Your task to perform on an android device: turn off improve location accuracy Image 0: 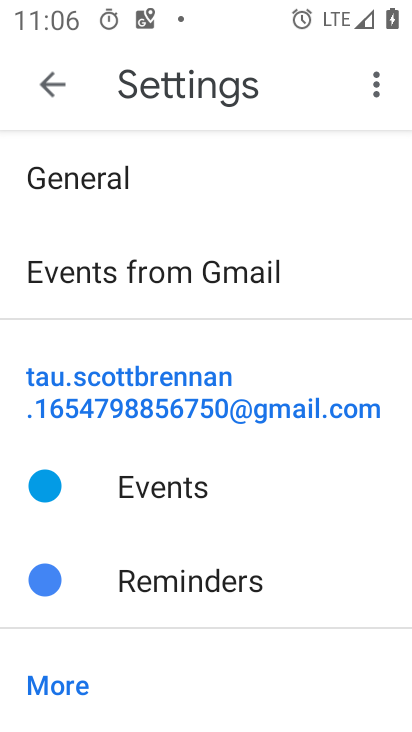
Step 0: press home button
Your task to perform on an android device: turn off improve location accuracy Image 1: 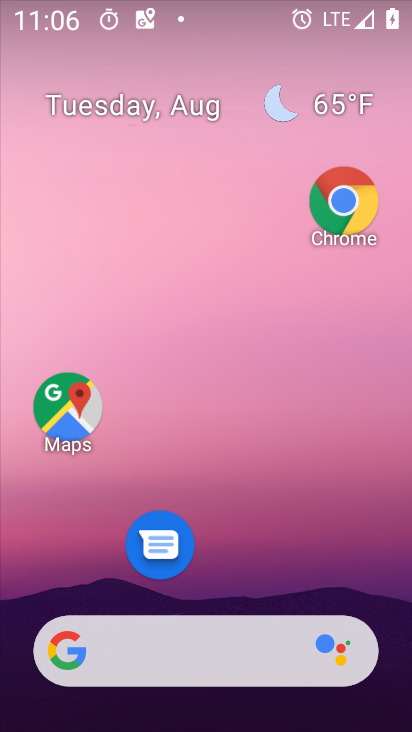
Step 1: drag from (252, 599) to (299, 170)
Your task to perform on an android device: turn off improve location accuracy Image 2: 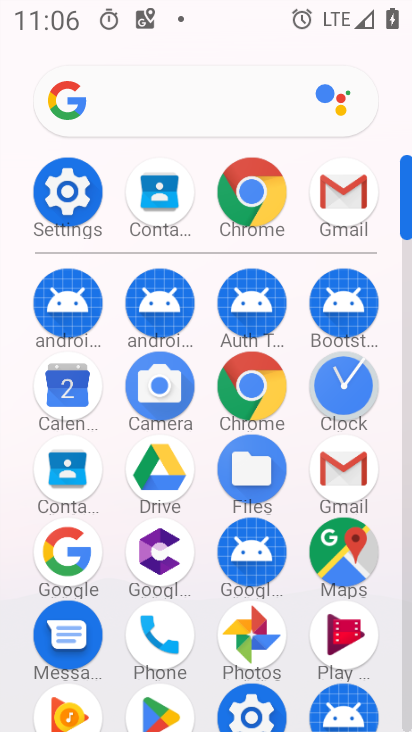
Step 2: click (103, 194)
Your task to perform on an android device: turn off improve location accuracy Image 3: 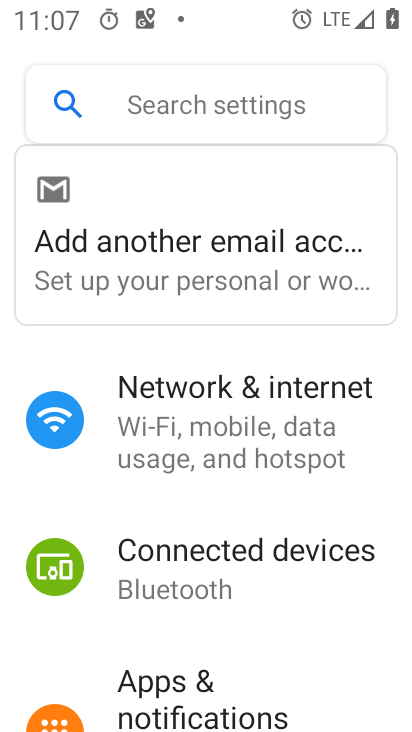
Step 3: drag from (262, 542) to (323, 167)
Your task to perform on an android device: turn off improve location accuracy Image 4: 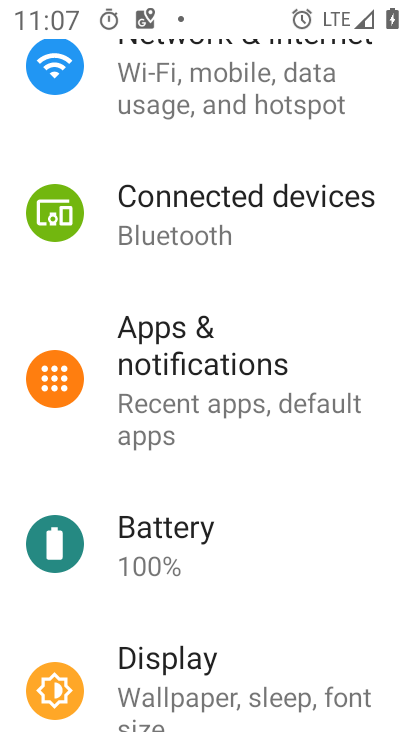
Step 4: drag from (231, 565) to (325, 270)
Your task to perform on an android device: turn off improve location accuracy Image 5: 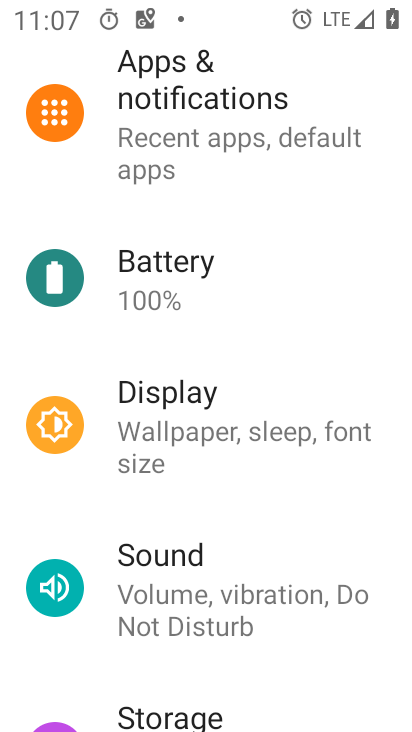
Step 5: drag from (203, 570) to (279, 239)
Your task to perform on an android device: turn off improve location accuracy Image 6: 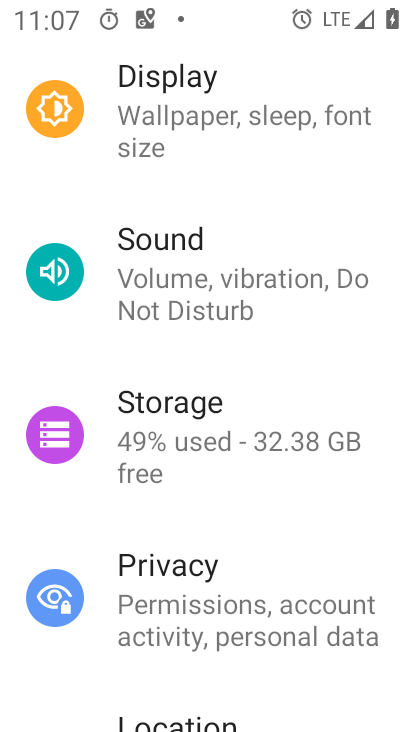
Step 6: drag from (217, 522) to (260, 415)
Your task to perform on an android device: turn off improve location accuracy Image 7: 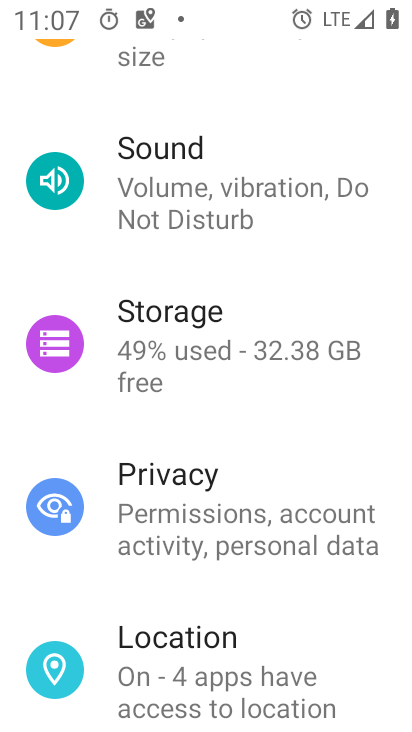
Step 7: click (214, 654)
Your task to perform on an android device: turn off improve location accuracy Image 8: 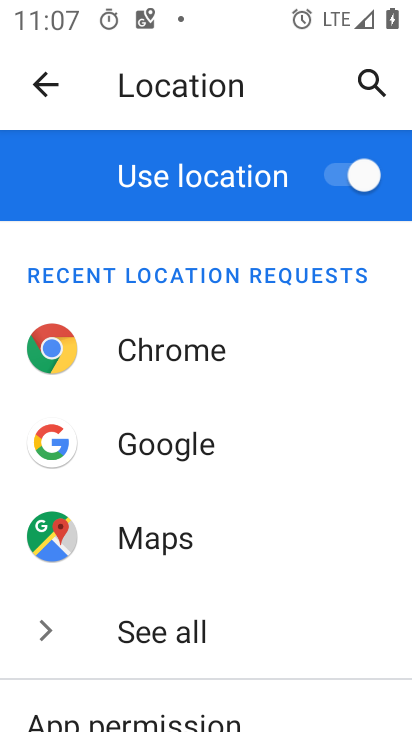
Step 8: drag from (223, 581) to (272, 301)
Your task to perform on an android device: turn off improve location accuracy Image 9: 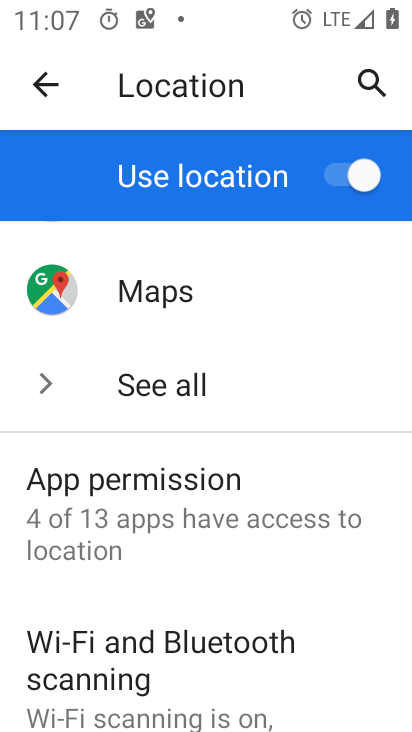
Step 9: drag from (226, 583) to (303, 279)
Your task to perform on an android device: turn off improve location accuracy Image 10: 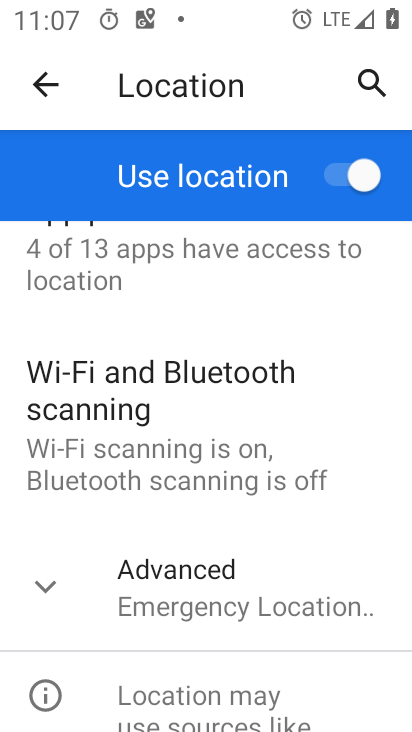
Step 10: click (233, 587)
Your task to perform on an android device: turn off improve location accuracy Image 11: 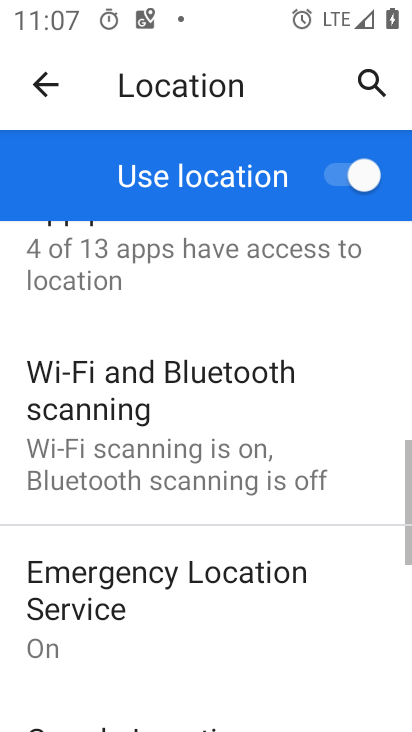
Step 11: drag from (236, 579) to (282, 274)
Your task to perform on an android device: turn off improve location accuracy Image 12: 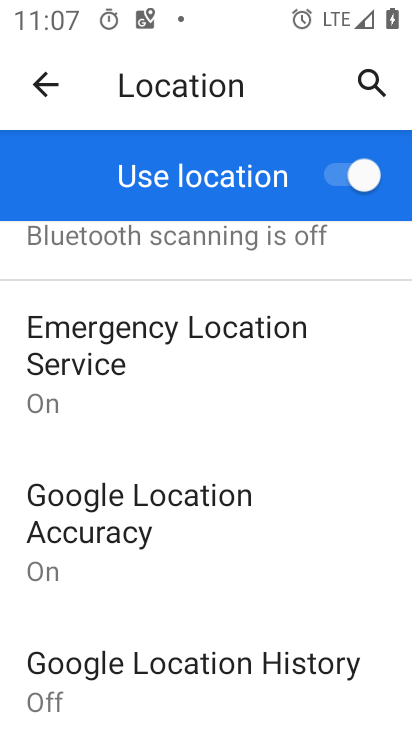
Step 12: click (226, 512)
Your task to perform on an android device: turn off improve location accuracy Image 13: 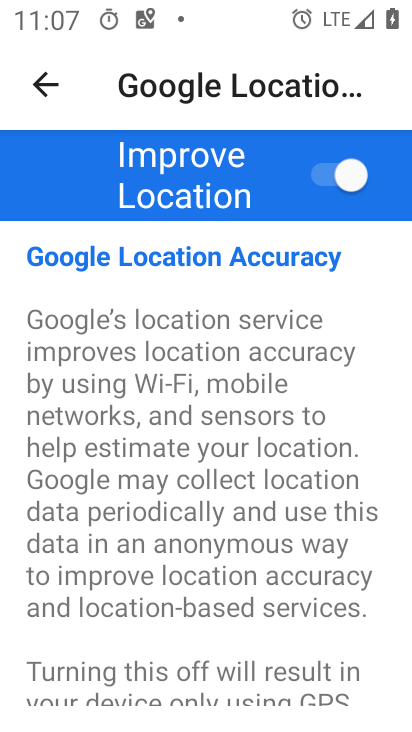
Step 13: click (309, 171)
Your task to perform on an android device: turn off improve location accuracy Image 14: 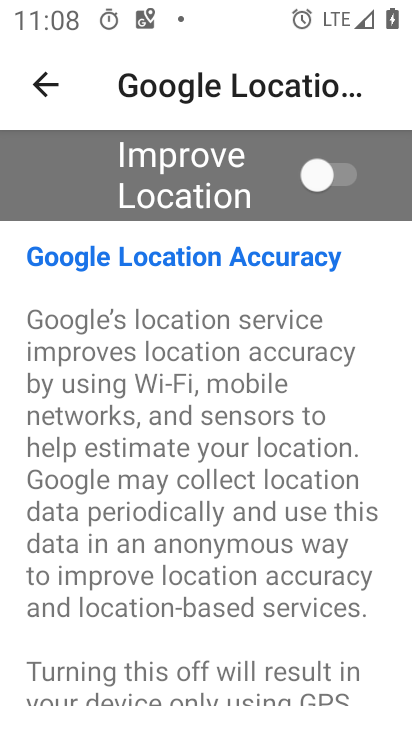
Step 14: task complete